Your task to perform on an android device: change the clock display to analog Image 0: 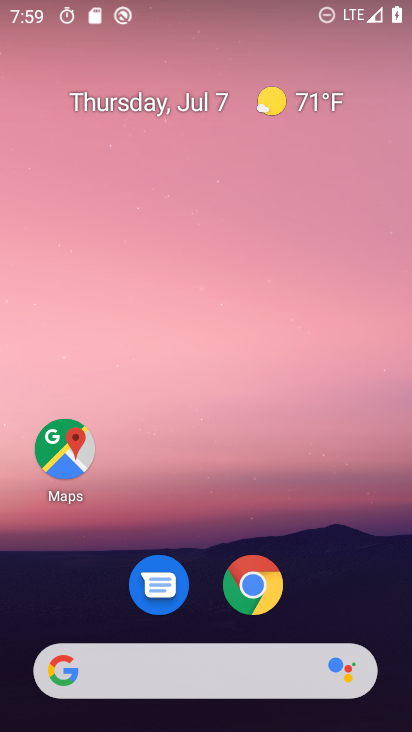
Step 0: click (254, 571)
Your task to perform on an android device: change the clock display to analog Image 1: 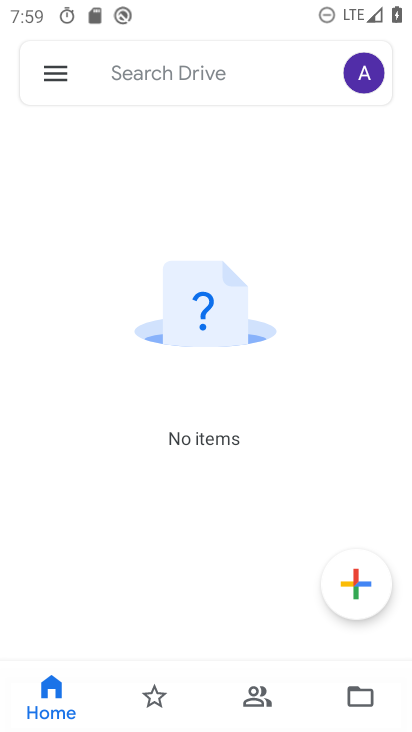
Step 1: press home button
Your task to perform on an android device: change the clock display to analog Image 2: 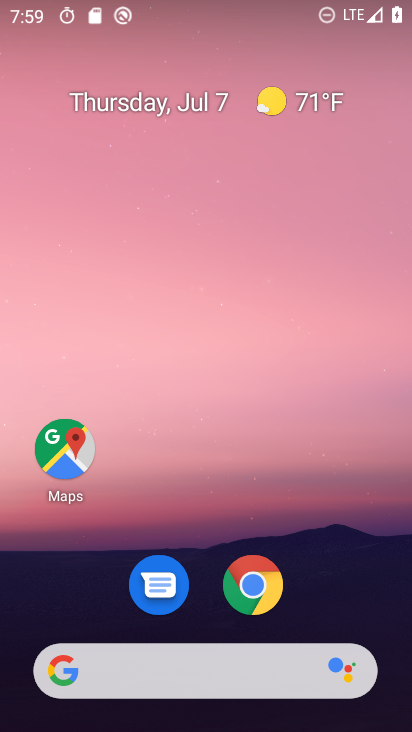
Step 2: drag from (179, 673) to (328, 56)
Your task to perform on an android device: change the clock display to analog Image 3: 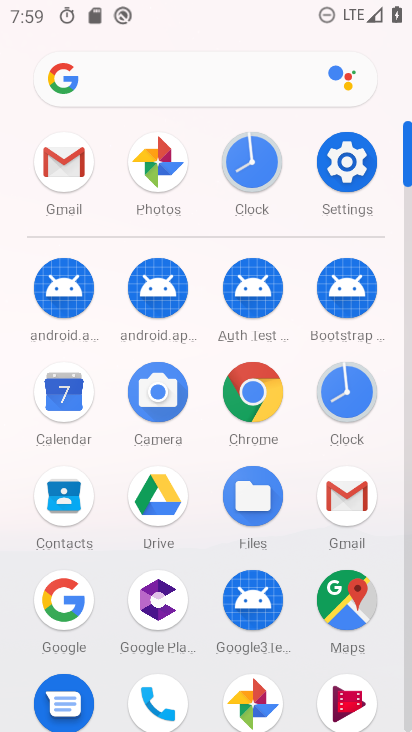
Step 3: click (338, 393)
Your task to perform on an android device: change the clock display to analog Image 4: 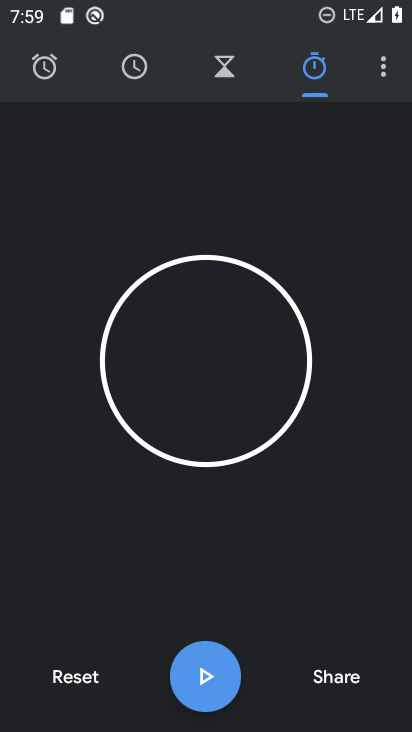
Step 4: click (375, 58)
Your task to perform on an android device: change the clock display to analog Image 5: 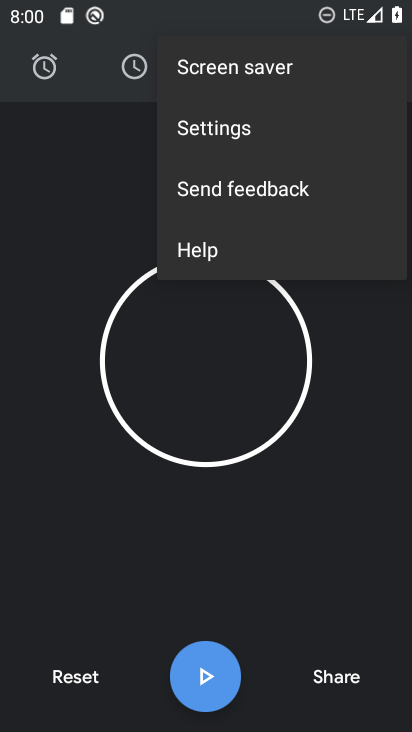
Step 5: click (223, 131)
Your task to perform on an android device: change the clock display to analog Image 6: 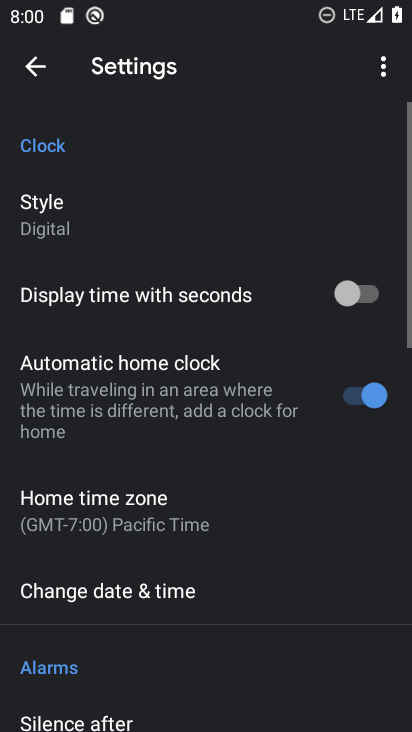
Step 6: click (55, 220)
Your task to perform on an android device: change the clock display to analog Image 7: 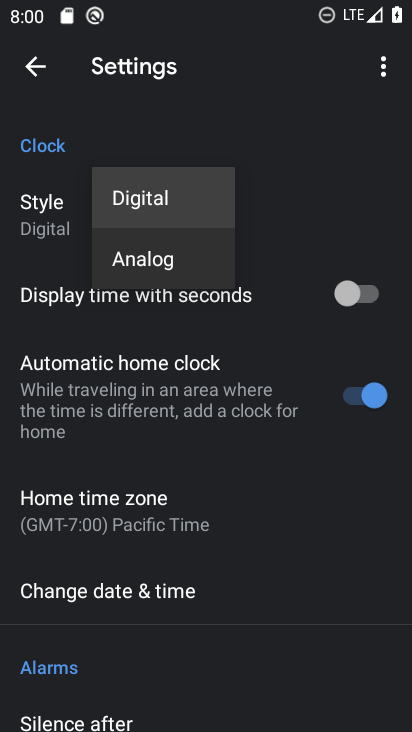
Step 7: click (138, 259)
Your task to perform on an android device: change the clock display to analog Image 8: 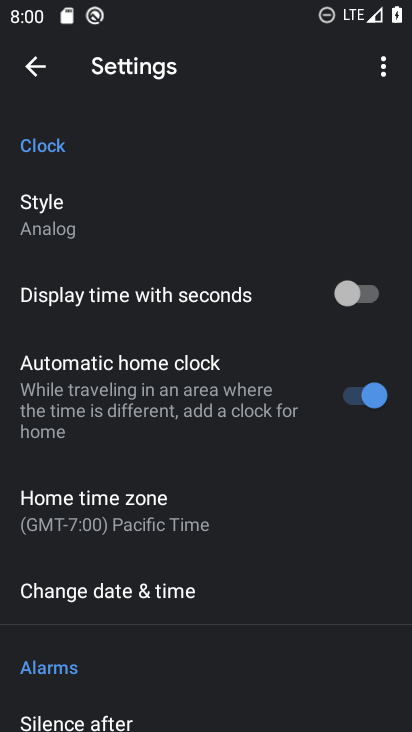
Step 8: task complete